Your task to perform on an android device: find photos in the google photos app Image 0: 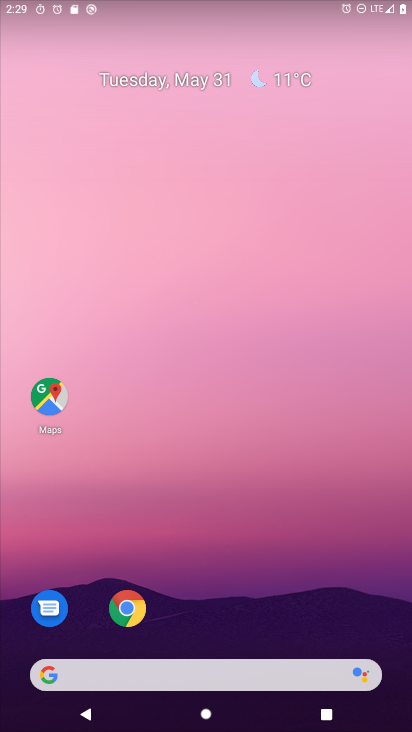
Step 0: drag from (267, 596) to (292, 11)
Your task to perform on an android device: find photos in the google photos app Image 1: 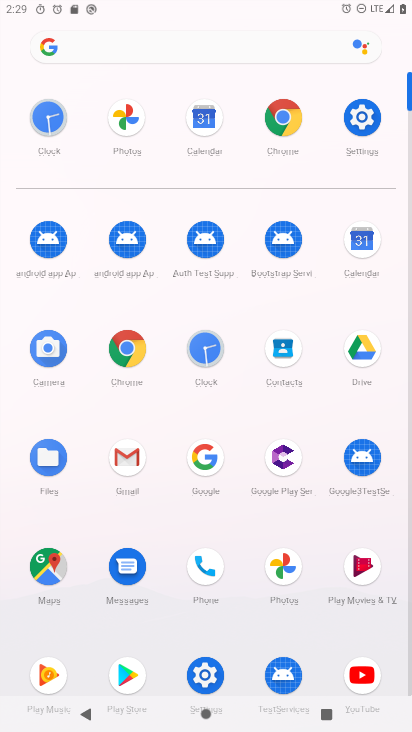
Step 1: click (275, 570)
Your task to perform on an android device: find photos in the google photos app Image 2: 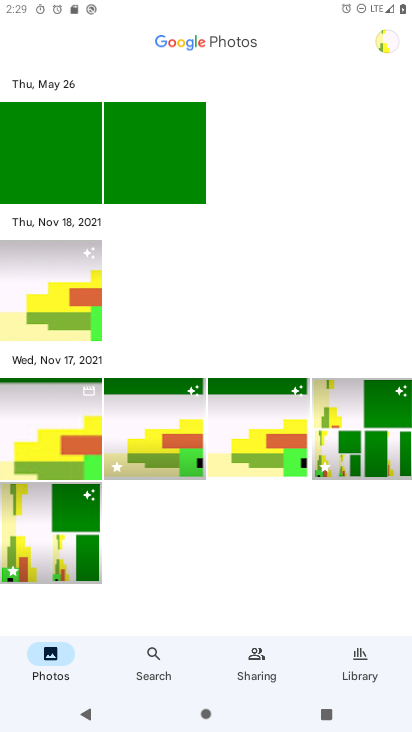
Step 2: task complete